Your task to perform on an android device: Open calendar and show me the second week of next month Image 0: 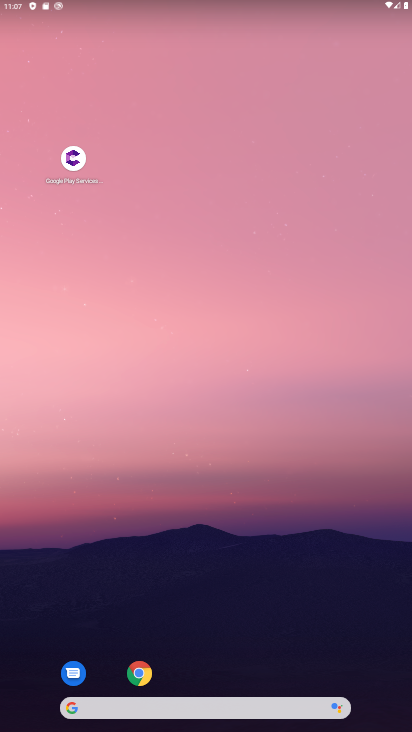
Step 0: drag from (306, 518) to (244, 0)
Your task to perform on an android device: Open calendar and show me the second week of next month Image 1: 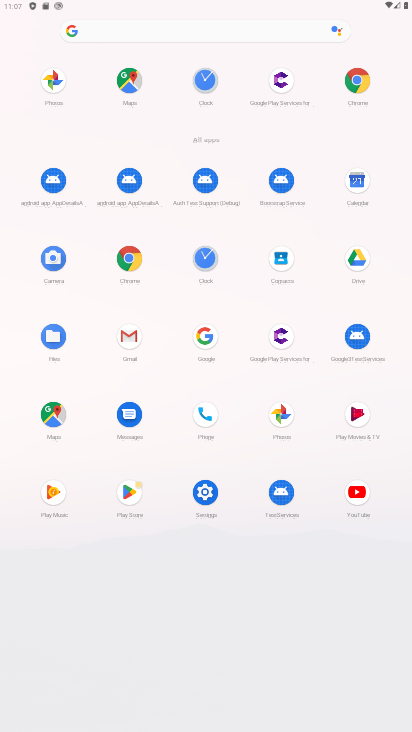
Step 1: click (365, 202)
Your task to perform on an android device: Open calendar and show me the second week of next month Image 2: 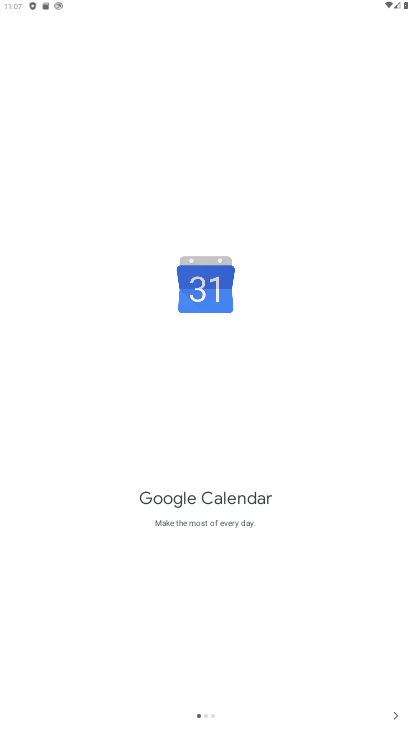
Step 2: click (391, 719)
Your task to perform on an android device: Open calendar and show me the second week of next month Image 3: 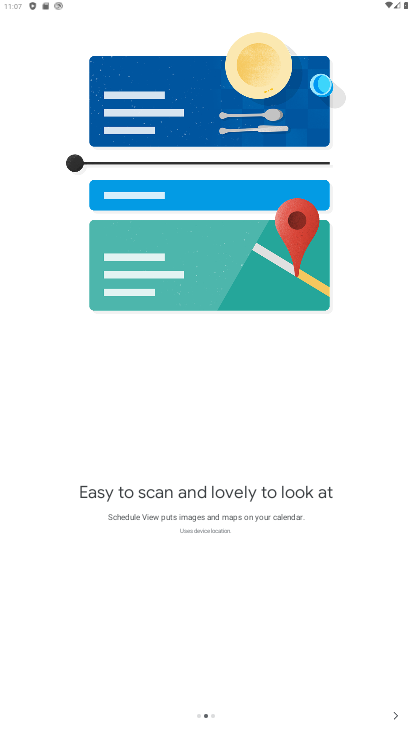
Step 3: click (391, 719)
Your task to perform on an android device: Open calendar and show me the second week of next month Image 4: 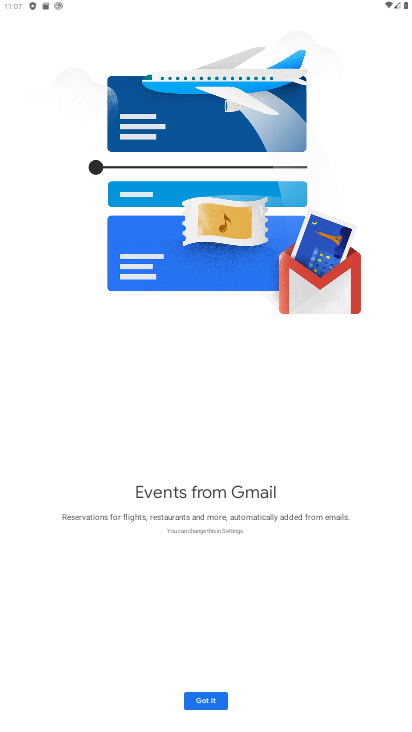
Step 4: click (203, 701)
Your task to perform on an android device: Open calendar and show me the second week of next month Image 5: 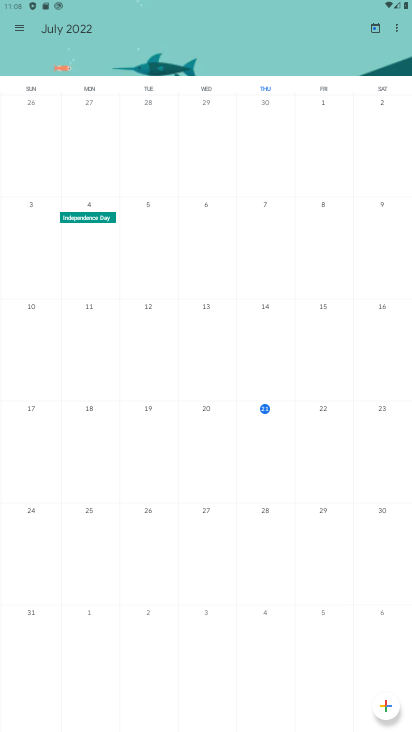
Step 5: drag from (334, 449) to (44, 413)
Your task to perform on an android device: Open calendar and show me the second week of next month Image 6: 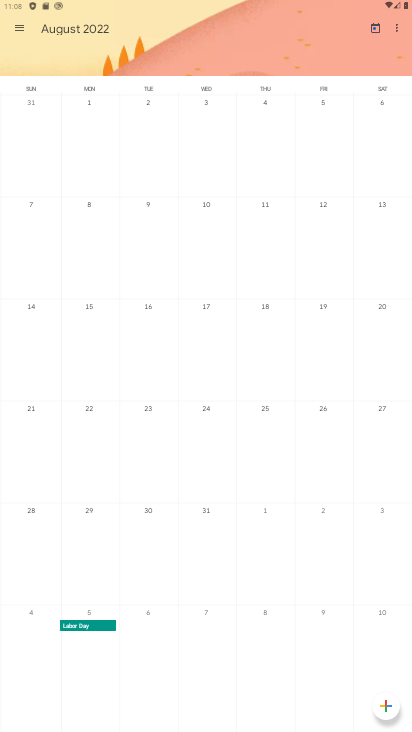
Step 6: click (36, 314)
Your task to perform on an android device: Open calendar and show me the second week of next month Image 7: 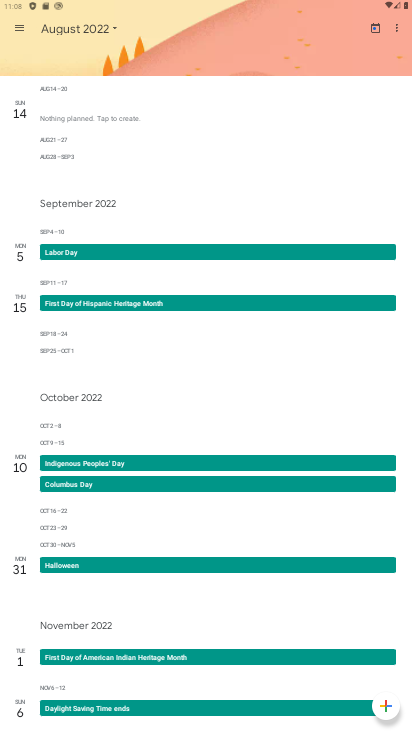
Step 7: task complete